Your task to perform on an android device: set default search engine in the chrome app Image 0: 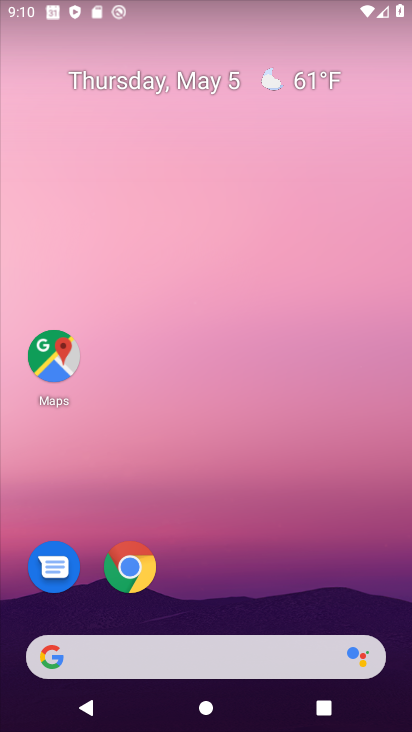
Step 0: click (129, 562)
Your task to perform on an android device: set default search engine in the chrome app Image 1: 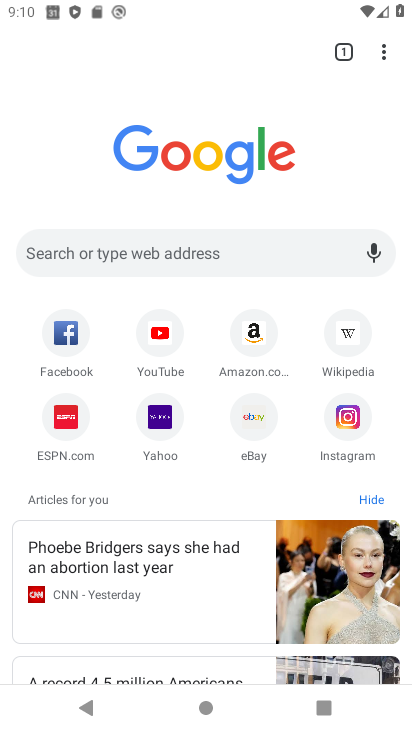
Step 1: click (383, 55)
Your task to perform on an android device: set default search engine in the chrome app Image 2: 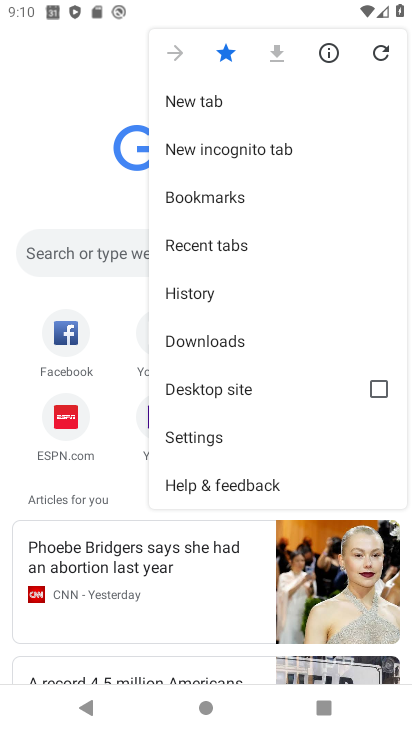
Step 2: click (196, 431)
Your task to perform on an android device: set default search engine in the chrome app Image 3: 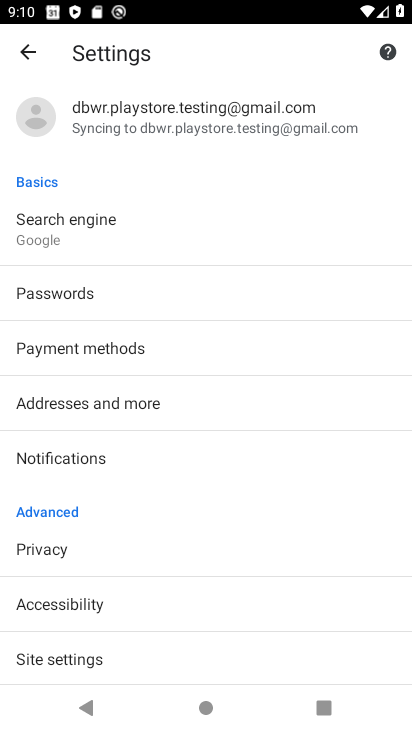
Step 3: click (47, 230)
Your task to perform on an android device: set default search engine in the chrome app Image 4: 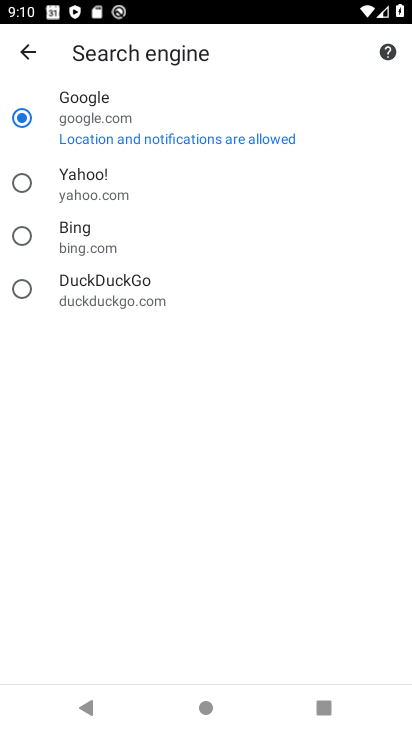
Step 4: click (17, 183)
Your task to perform on an android device: set default search engine in the chrome app Image 5: 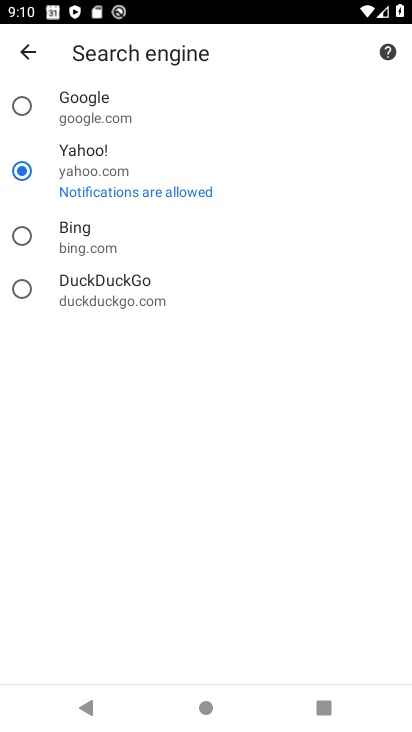
Step 5: task complete